Your task to perform on an android device: turn off location history Image 0: 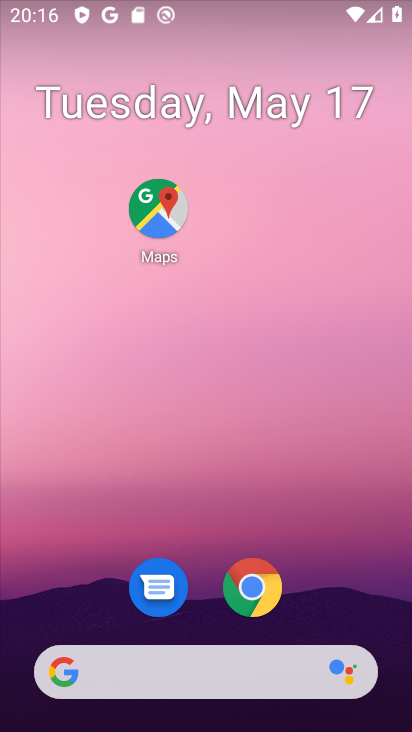
Step 0: drag from (73, 473) to (247, 89)
Your task to perform on an android device: turn off location history Image 1: 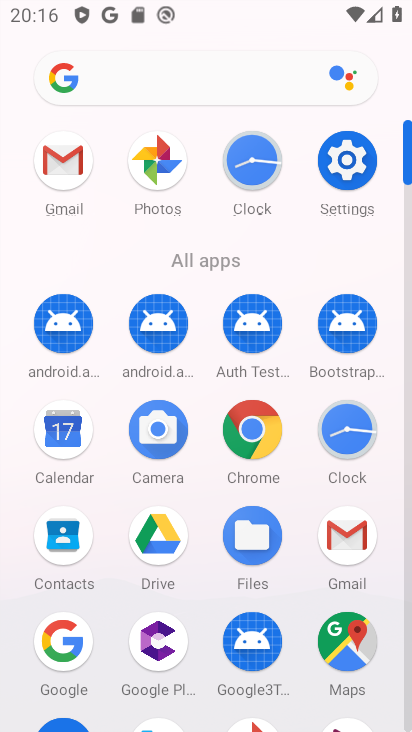
Step 1: click (337, 165)
Your task to perform on an android device: turn off location history Image 2: 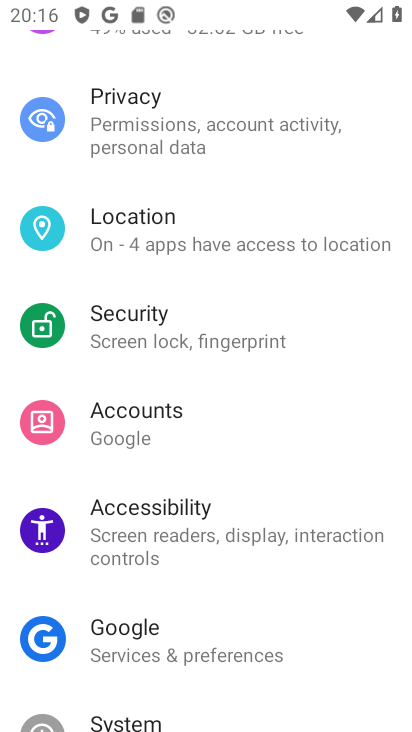
Step 2: click (142, 228)
Your task to perform on an android device: turn off location history Image 3: 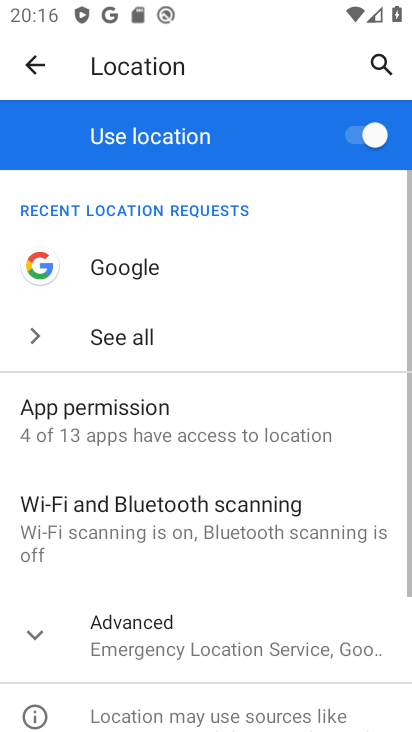
Step 3: click (209, 656)
Your task to perform on an android device: turn off location history Image 4: 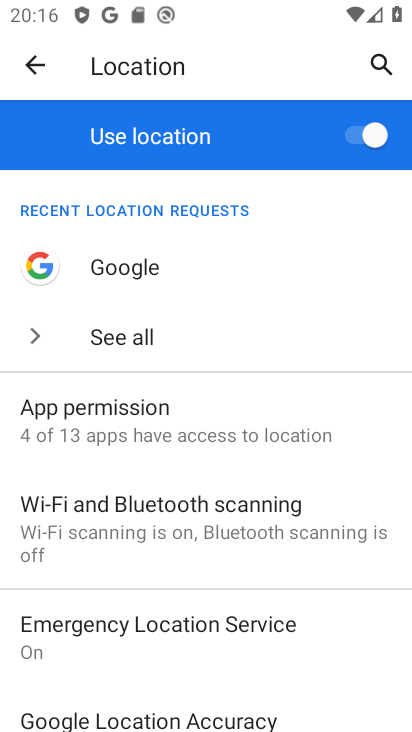
Step 4: drag from (27, 396) to (110, 250)
Your task to perform on an android device: turn off location history Image 5: 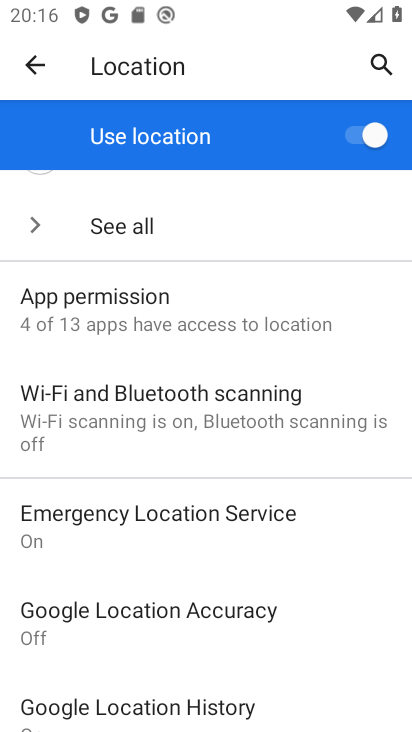
Step 5: click (149, 708)
Your task to perform on an android device: turn off location history Image 6: 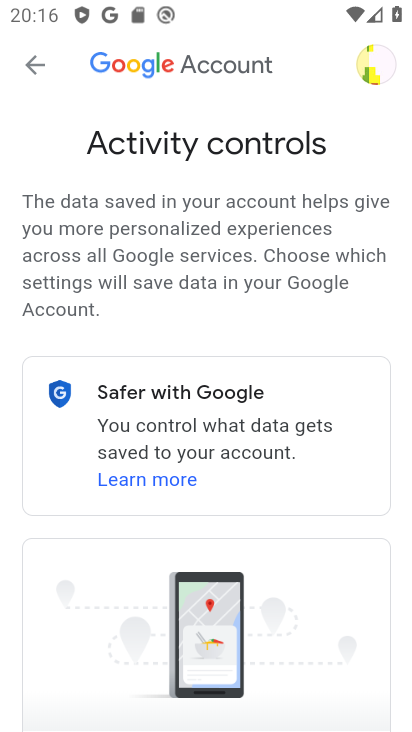
Step 6: drag from (24, 453) to (144, 173)
Your task to perform on an android device: turn off location history Image 7: 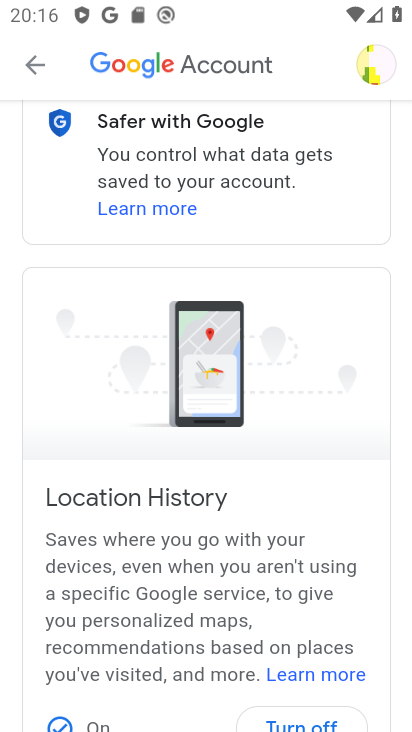
Step 7: drag from (11, 686) to (215, 182)
Your task to perform on an android device: turn off location history Image 8: 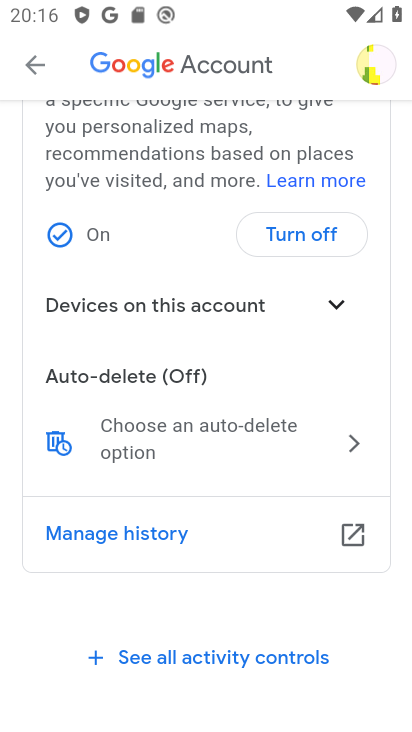
Step 8: click (278, 236)
Your task to perform on an android device: turn off location history Image 9: 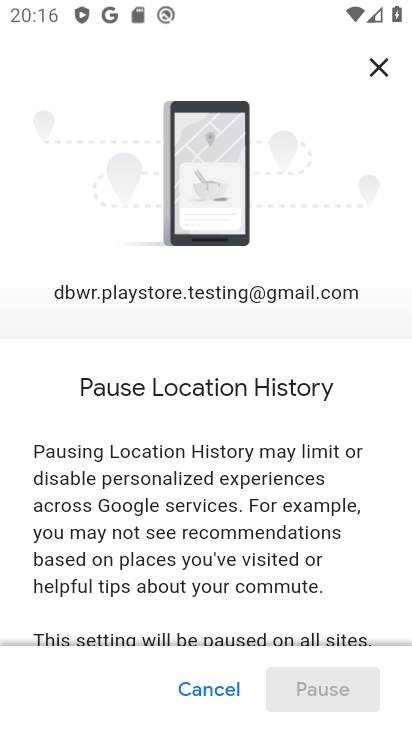
Step 9: drag from (24, 555) to (210, 135)
Your task to perform on an android device: turn off location history Image 10: 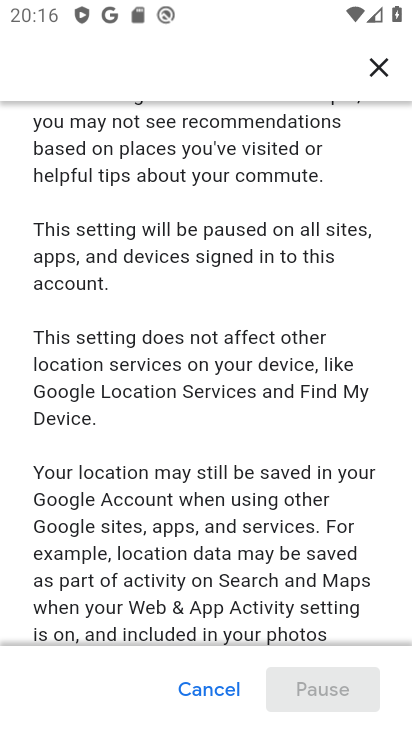
Step 10: drag from (99, 383) to (185, 166)
Your task to perform on an android device: turn off location history Image 11: 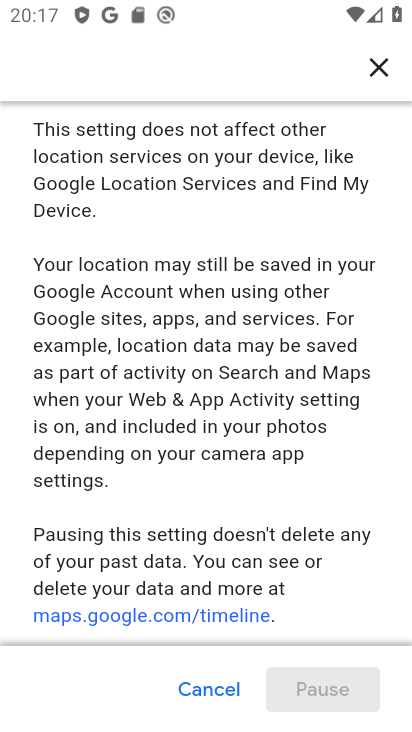
Step 11: drag from (20, 472) to (191, 163)
Your task to perform on an android device: turn off location history Image 12: 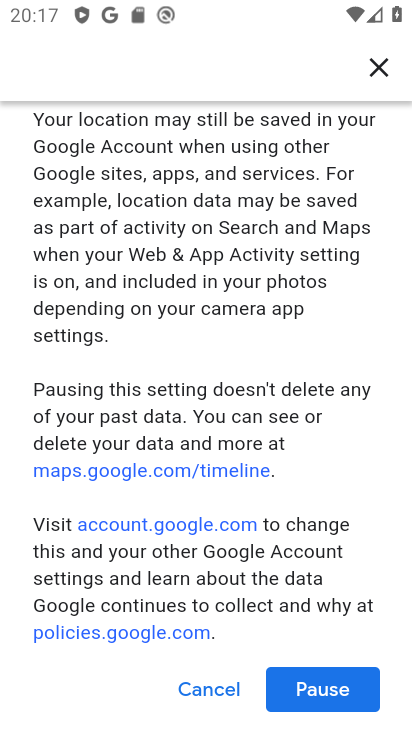
Step 12: click (341, 687)
Your task to perform on an android device: turn off location history Image 13: 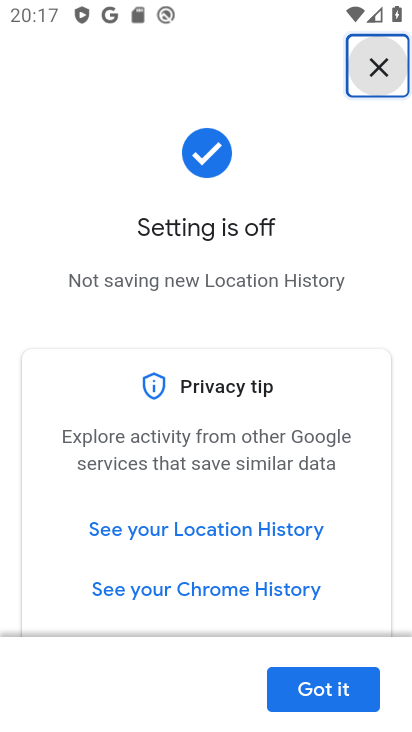
Step 13: click (334, 698)
Your task to perform on an android device: turn off location history Image 14: 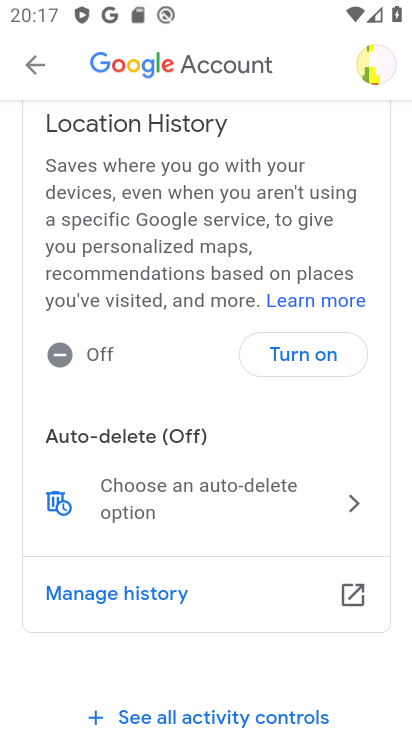
Step 14: task complete